Your task to perform on an android device: all mails in gmail Image 0: 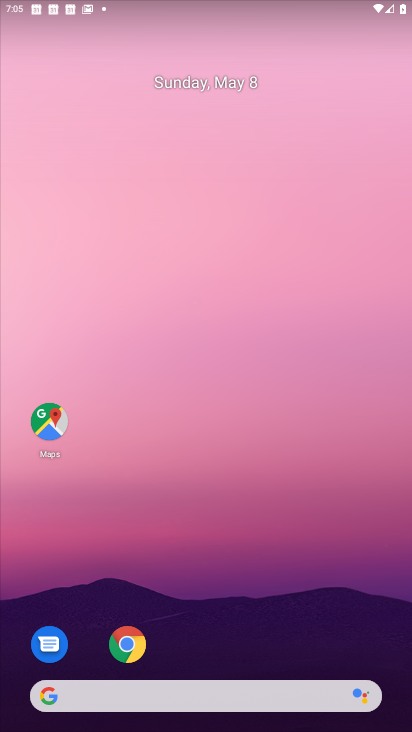
Step 0: drag from (310, 621) to (201, 142)
Your task to perform on an android device: all mails in gmail Image 1: 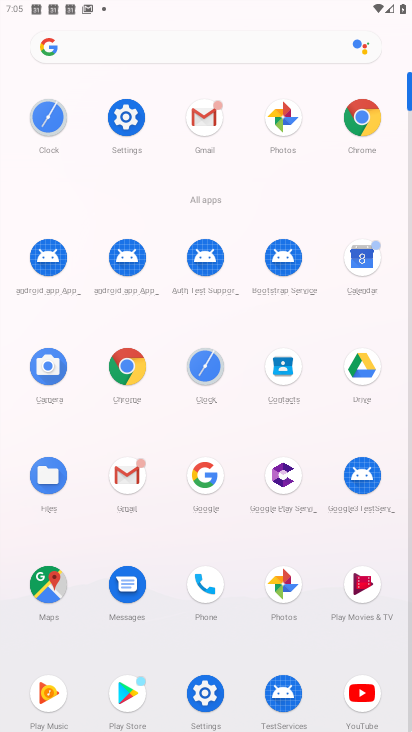
Step 1: click (214, 121)
Your task to perform on an android device: all mails in gmail Image 2: 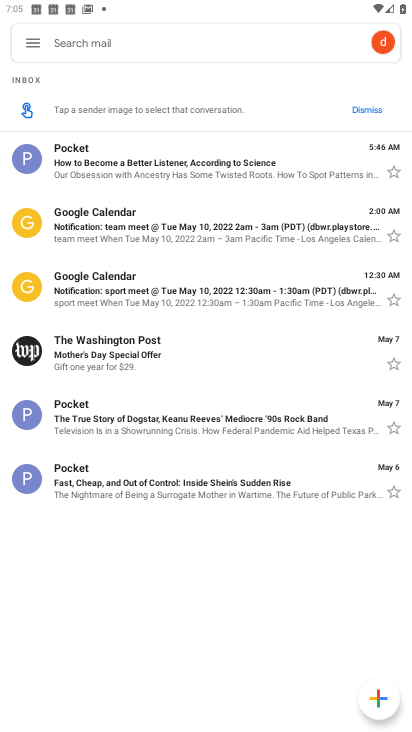
Step 2: click (29, 30)
Your task to perform on an android device: all mails in gmail Image 3: 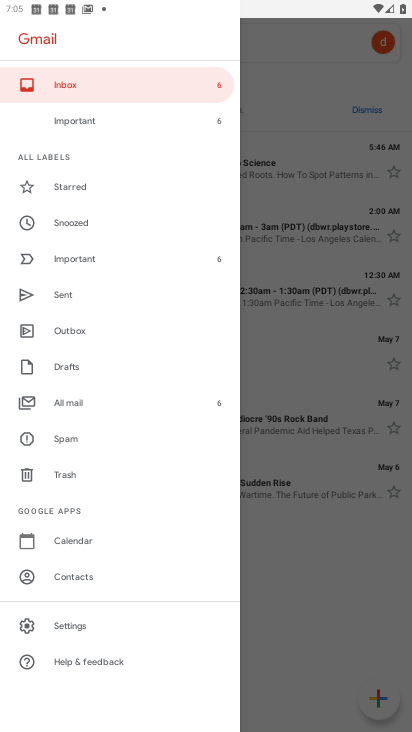
Step 3: click (100, 398)
Your task to perform on an android device: all mails in gmail Image 4: 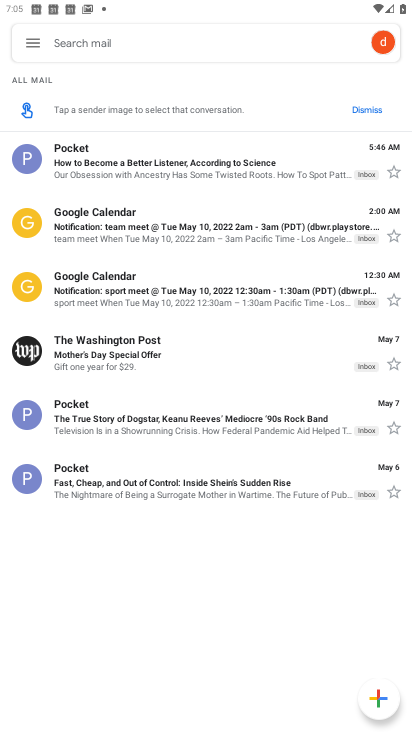
Step 4: task complete